Your task to perform on an android device: change alarm snooze length Image 0: 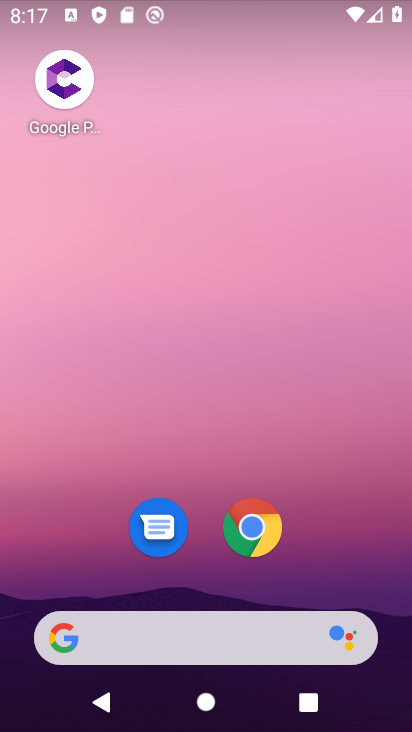
Step 0: drag from (24, 601) to (218, 121)
Your task to perform on an android device: change alarm snooze length Image 1: 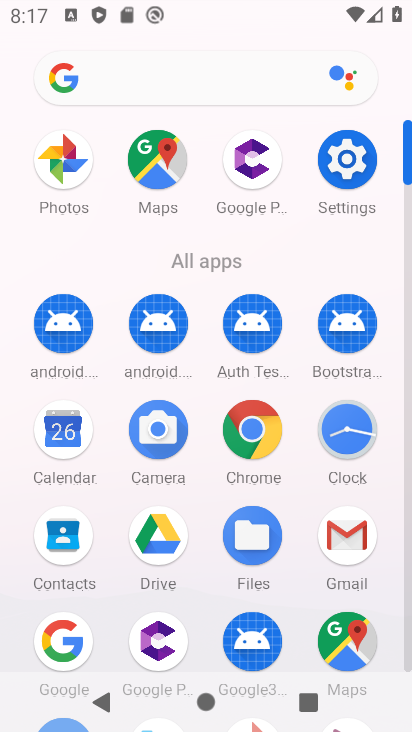
Step 1: click (361, 164)
Your task to perform on an android device: change alarm snooze length Image 2: 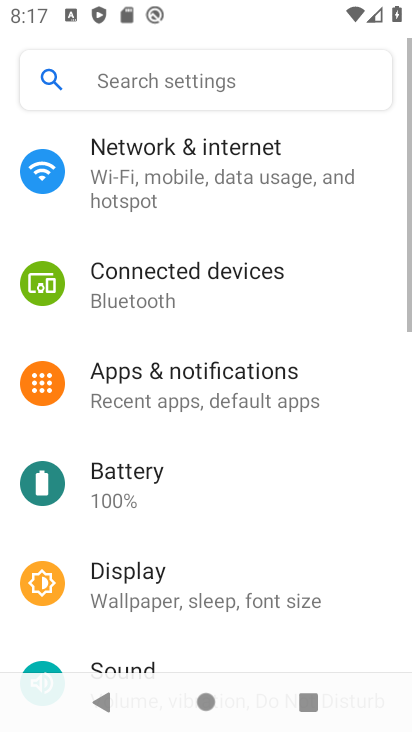
Step 2: press back button
Your task to perform on an android device: change alarm snooze length Image 3: 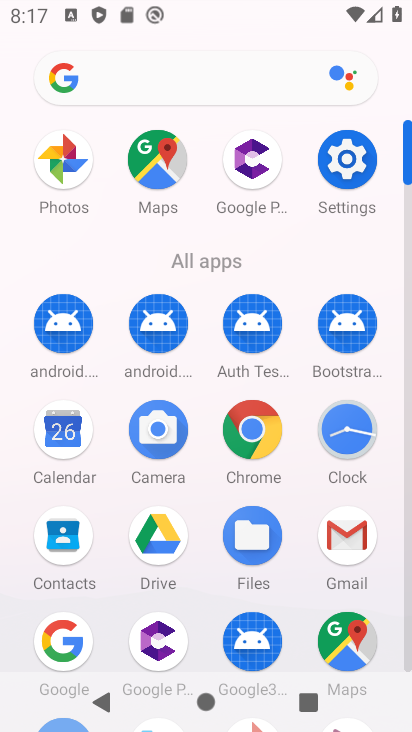
Step 3: click (345, 443)
Your task to perform on an android device: change alarm snooze length Image 4: 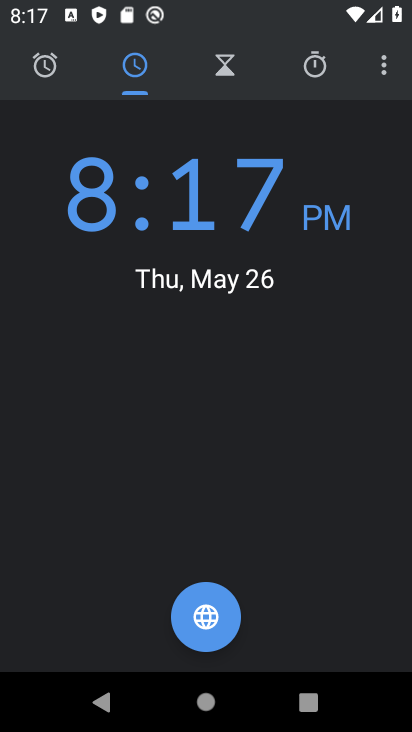
Step 4: click (392, 84)
Your task to perform on an android device: change alarm snooze length Image 5: 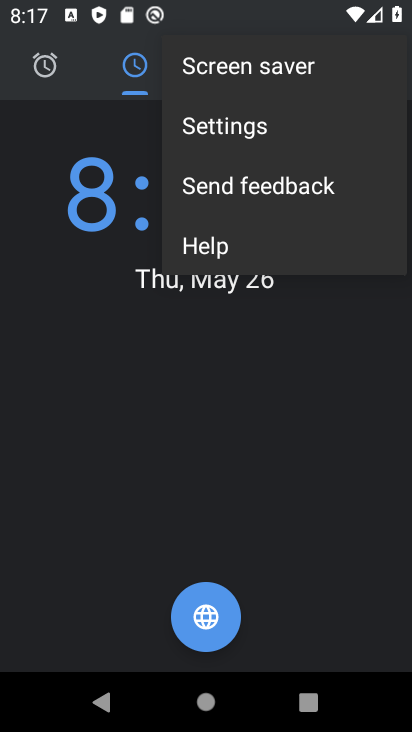
Step 5: click (233, 123)
Your task to perform on an android device: change alarm snooze length Image 6: 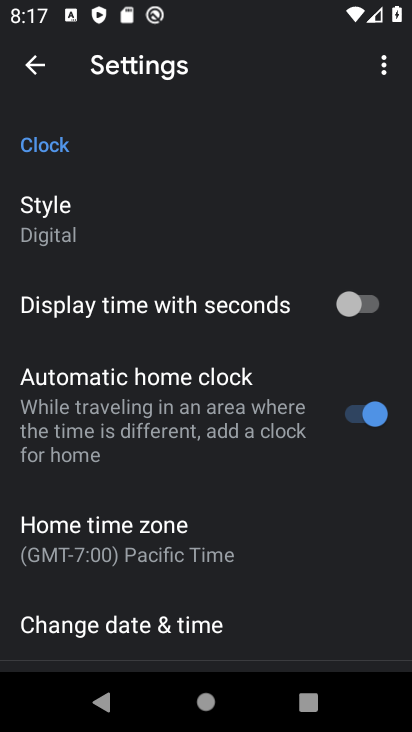
Step 6: drag from (5, 623) to (193, 182)
Your task to perform on an android device: change alarm snooze length Image 7: 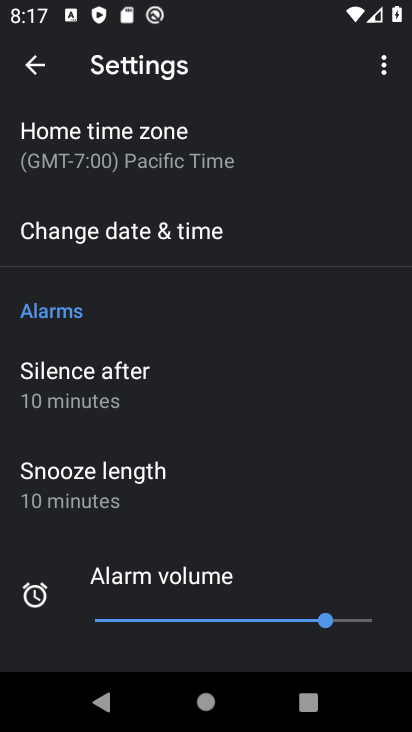
Step 7: click (93, 487)
Your task to perform on an android device: change alarm snooze length Image 8: 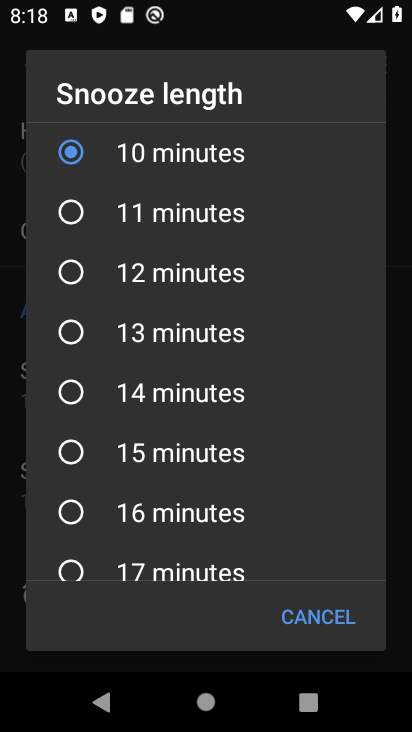
Step 8: click (159, 216)
Your task to perform on an android device: change alarm snooze length Image 9: 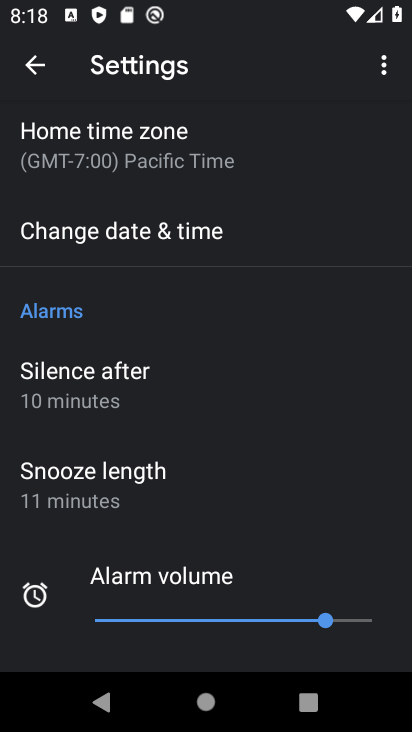
Step 9: task complete